Your task to perform on an android device: check android version Image 0: 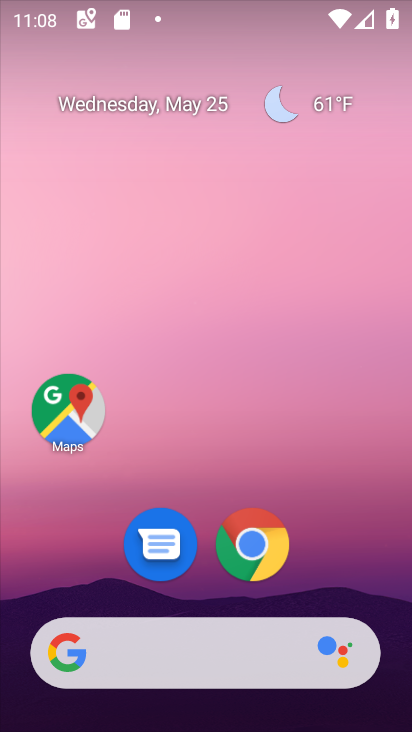
Step 0: drag from (326, 556) to (156, 136)
Your task to perform on an android device: check android version Image 1: 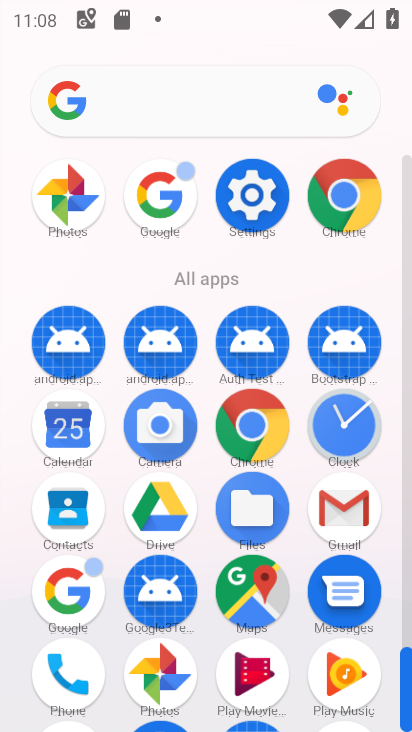
Step 1: click (259, 200)
Your task to perform on an android device: check android version Image 2: 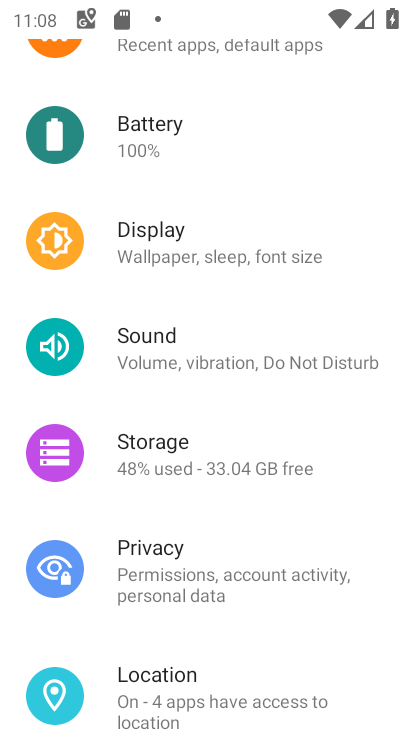
Step 2: drag from (166, 604) to (115, 123)
Your task to perform on an android device: check android version Image 3: 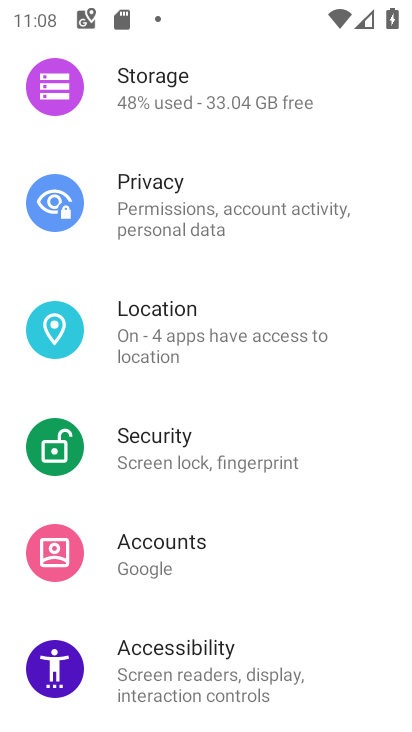
Step 3: drag from (263, 668) to (176, 200)
Your task to perform on an android device: check android version Image 4: 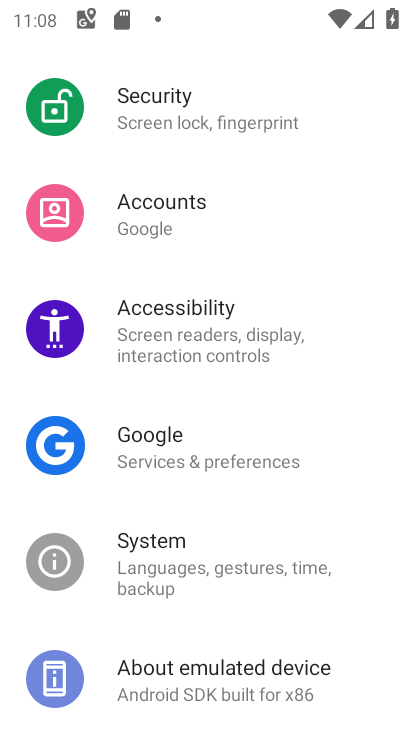
Step 4: click (161, 672)
Your task to perform on an android device: check android version Image 5: 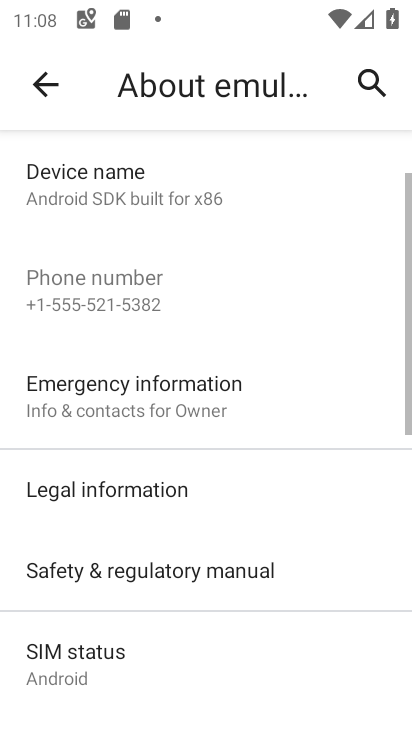
Step 5: drag from (91, 398) to (33, 132)
Your task to perform on an android device: check android version Image 6: 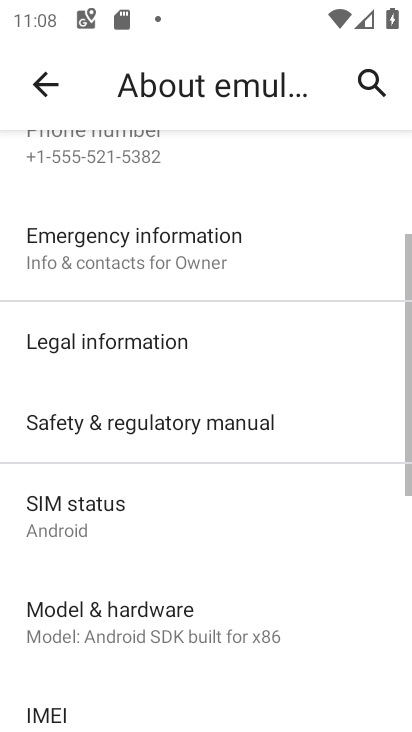
Step 6: drag from (152, 642) to (128, 288)
Your task to perform on an android device: check android version Image 7: 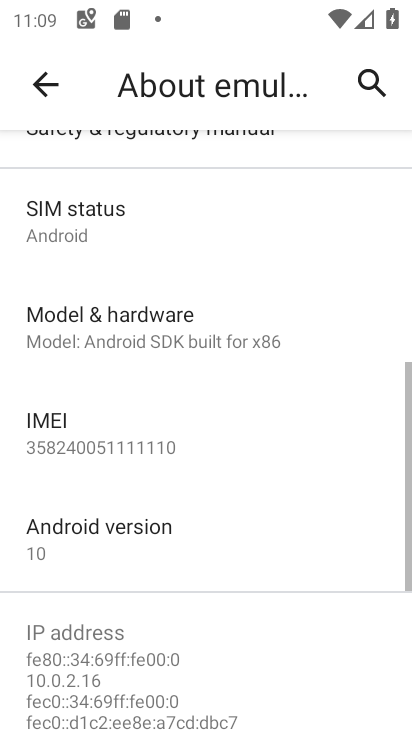
Step 7: click (82, 527)
Your task to perform on an android device: check android version Image 8: 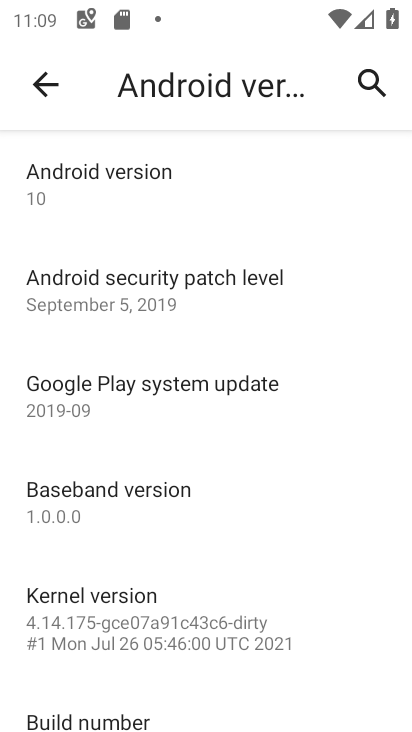
Step 8: task complete